Your task to perform on an android device: Show me the alarms in the clock app Image 0: 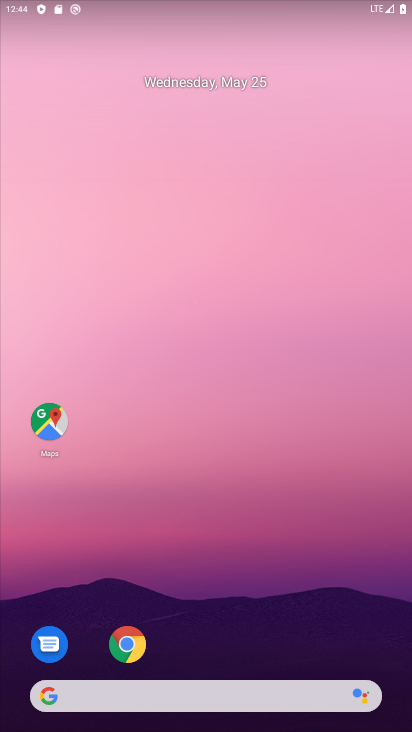
Step 0: click (294, 555)
Your task to perform on an android device: Show me the alarms in the clock app Image 1: 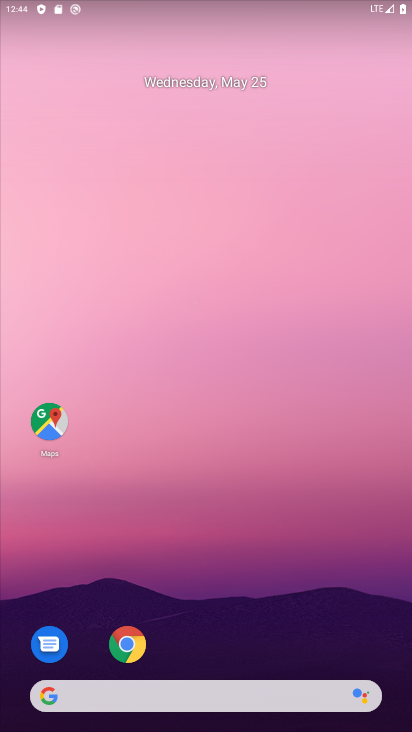
Step 1: drag from (294, 555) to (225, 107)
Your task to perform on an android device: Show me the alarms in the clock app Image 2: 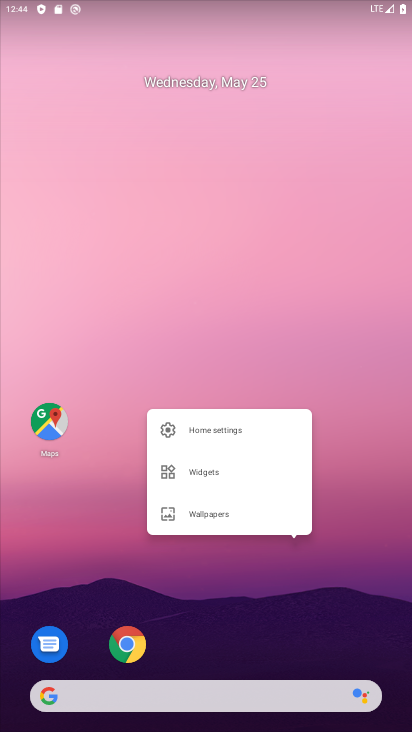
Step 2: click (375, 430)
Your task to perform on an android device: Show me the alarms in the clock app Image 3: 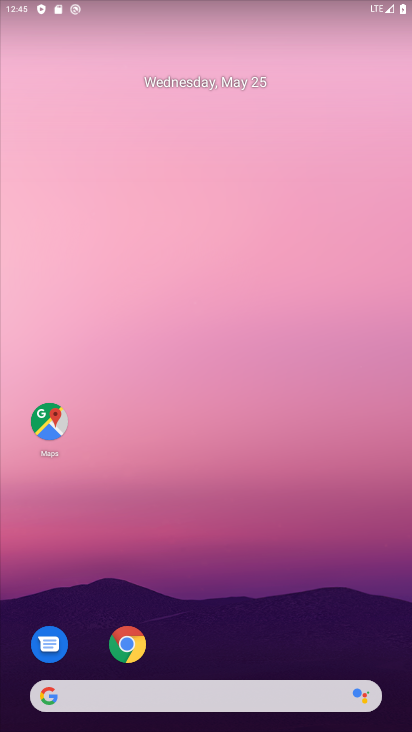
Step 3: drag from (166, 564) to (145, 141)
Your task to perform on an android device: Show me the alarms in the clock app Image 4: 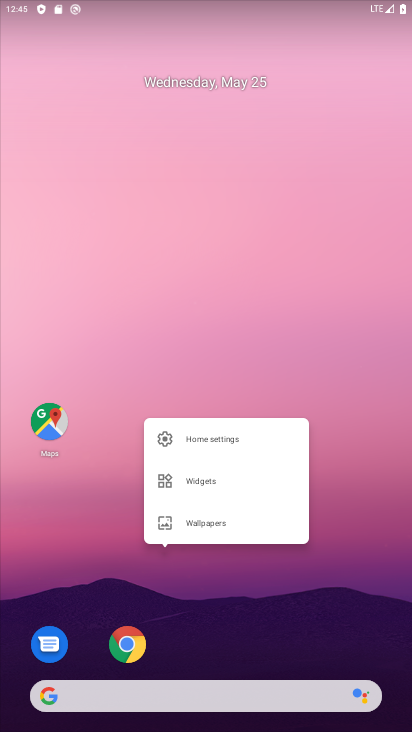
Step 4: click (231, 277)
Your task to perform on an android device: Show me the alarms in the clock app Image 5: 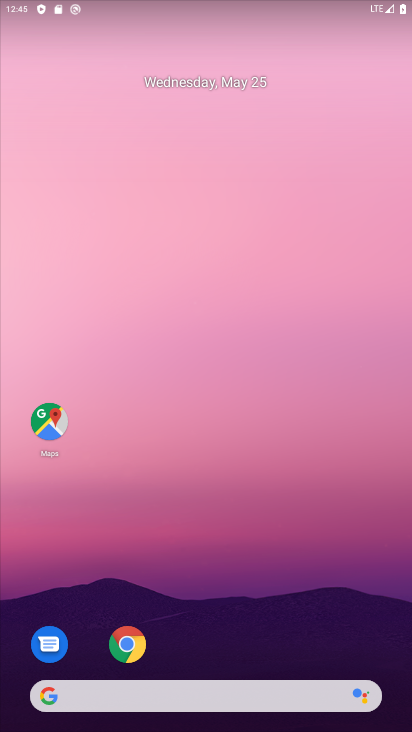
Step 5: click (258, 604)
Your task to perform on an android device: Show me the alarms in the clock app Image 6: 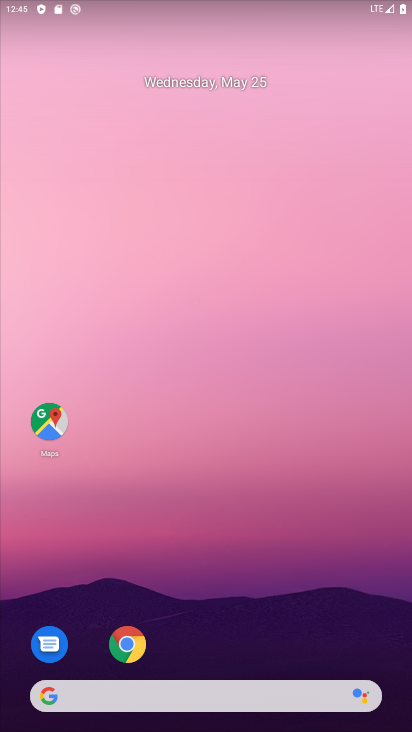
Step 6: drag from (258, 604) to (244, 204)
Your task to perform on an android device: Show me the alarms in the clock app Image 7: 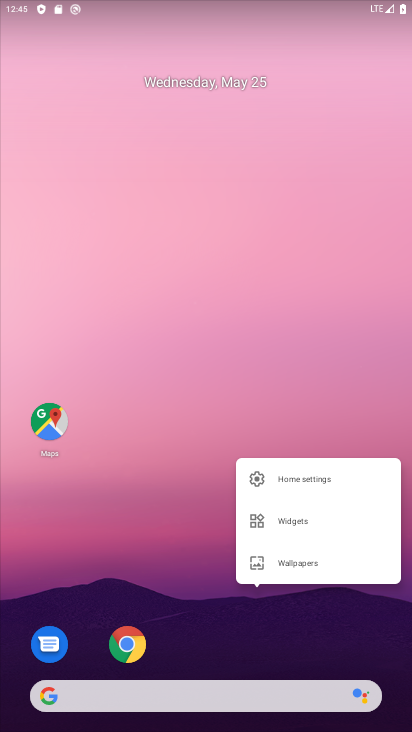
Step 7: click (244, 204)
Your task to perform on an android device: Show me the alarms in the clock app Image 8: 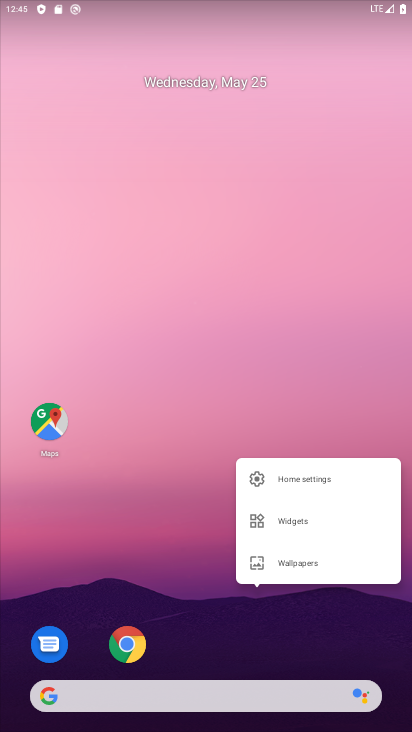
Step 8: click (244, 204)
Your task to perform on an android device: Show me the alarms in the clock app Image 9: 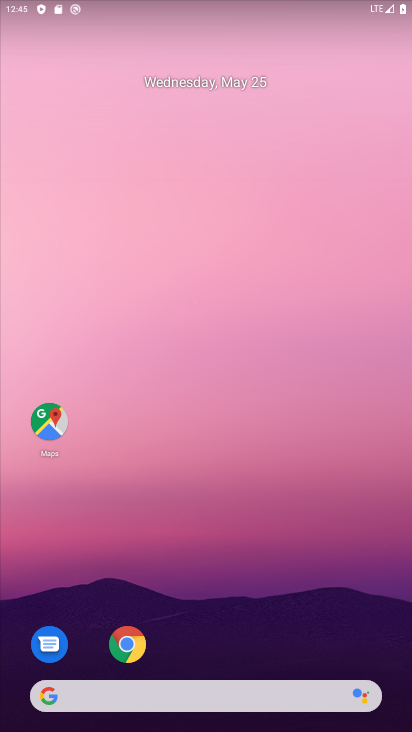
Step 9: drag from (235, 495) to (203, 108)
Your task to perform on an android device: Show me the alarms in the clock app Image 10: 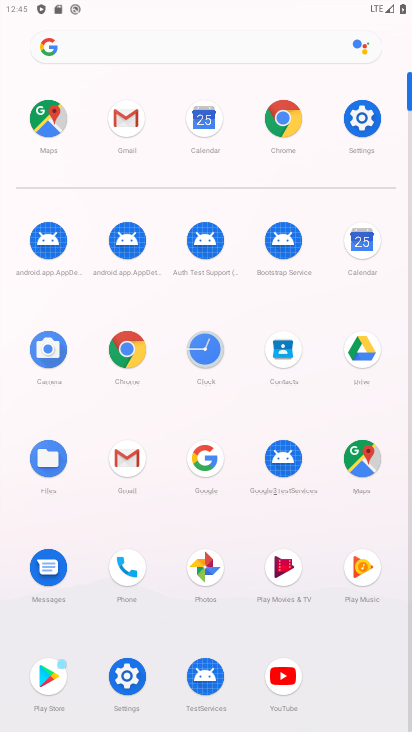
Step 10: click (207, 356)
Your task to perform on an android device: Show me the alarms in the clock app Image 11: 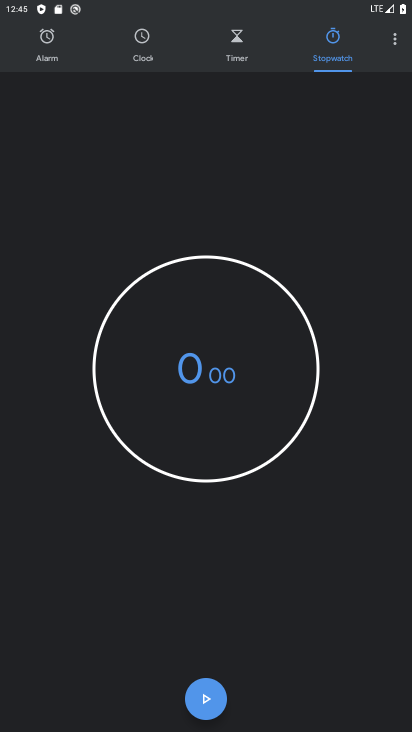
Step 11: click (53, 40)
Your task to perform on an android device: Show me the alarms in the clock app Image 12: 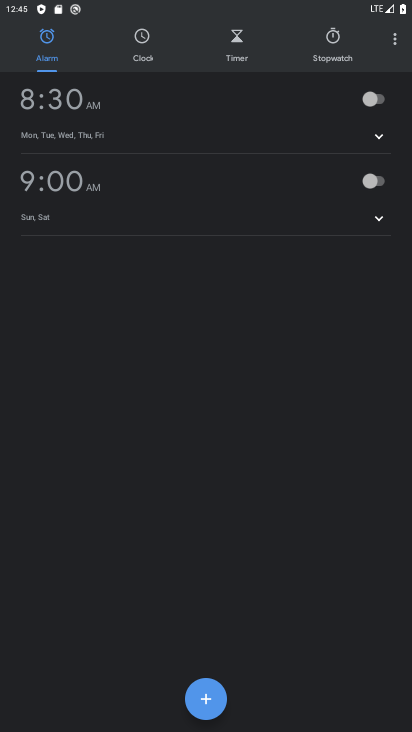
Step 12: task complete